Your task to perform on an android device: Open notification settings Image 0: 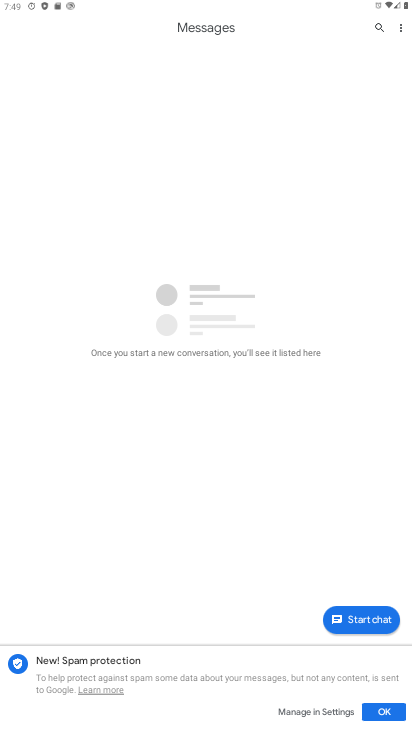
Step 0: press home button
Your task to perform on an android device: Open notification settings Image 1: 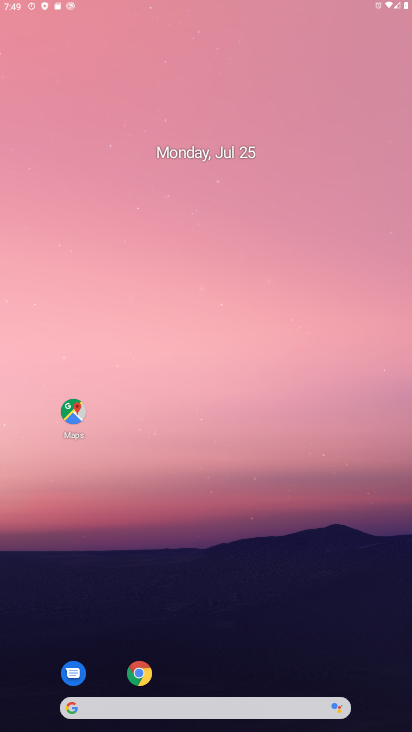
Step 1: drag from (302, 491) to (187, 57)
Your task to perform on an android device: Open notification settings Image 2: 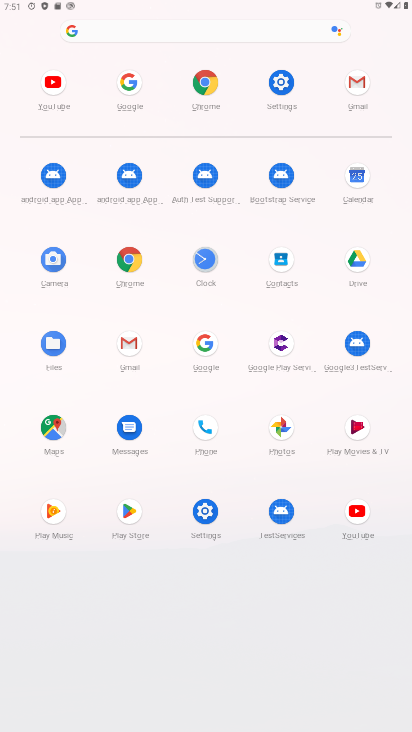
Step 2: click (206, 507)
Your task to perform on an android device: Open notification settings Image 3: 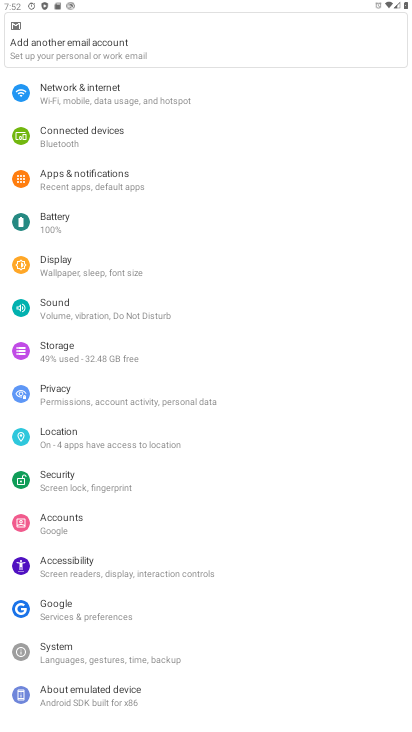
Step 3: click (91, 184)
Your task to perform on an android device: Open notification settings Image 4: 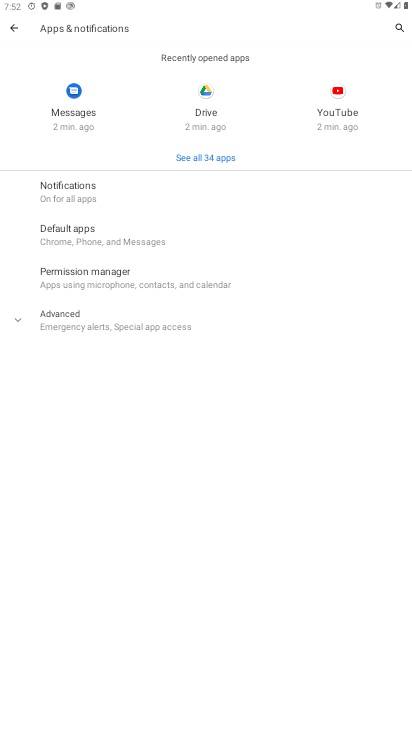
Step 4: click (91, 184)
Your task to perform on an android device: Open notification settings Image 5: 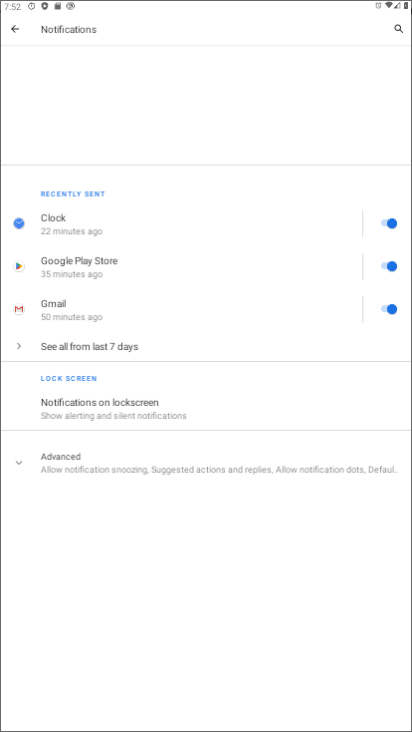
Step 5: task complete